Your task to perform on an android device: Turn off the flashlight Image 0: 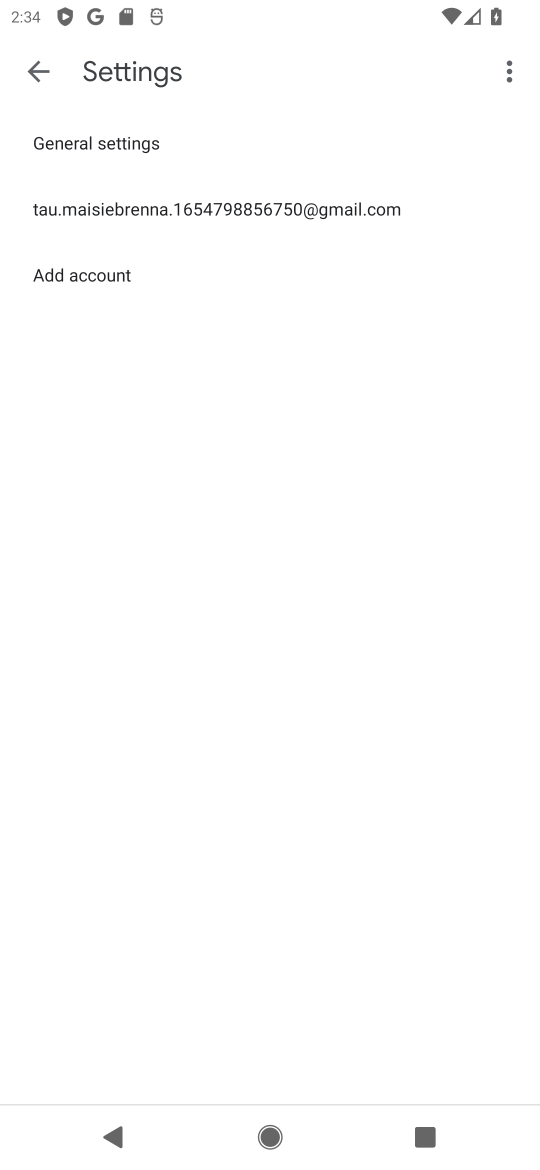
Step 0: press home button
Your task to perform on an android device: Turn off the flashlight Image 1: 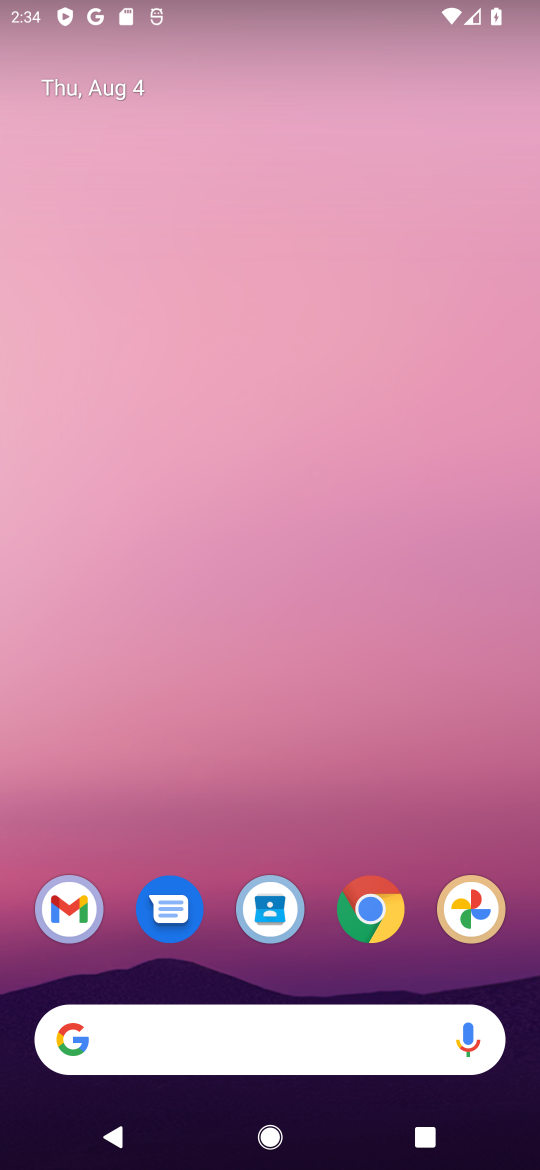
Step 1: task complete